Your task to perform on an android device: Go to location settings Image 0: 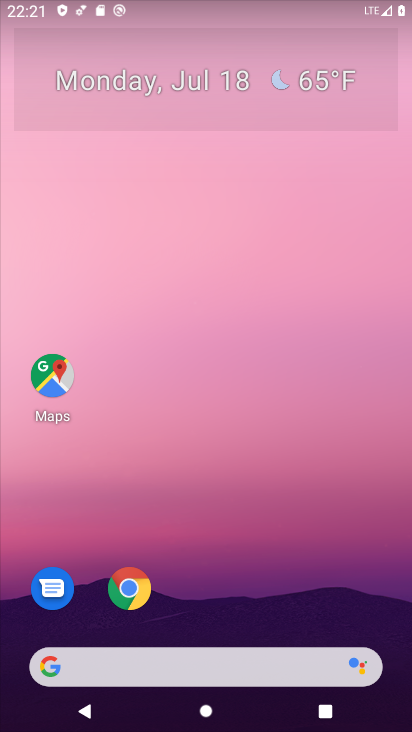
Step 0: press home button
Your task to perform on an android device: Go to location settings Image 1: 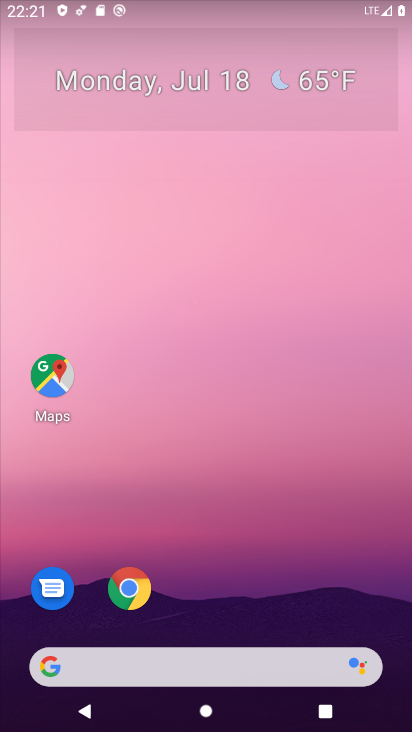
Step 1: drag from (248, 613) to (210, 90)
Your task to perform on an android device: Go to location settings Image 2: 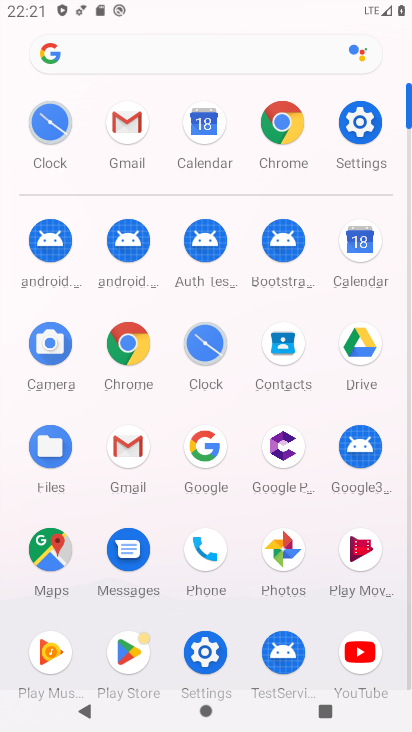
Step 2: click (360, 133)
Your task to perform on an android device: Go to location settings Image 3: 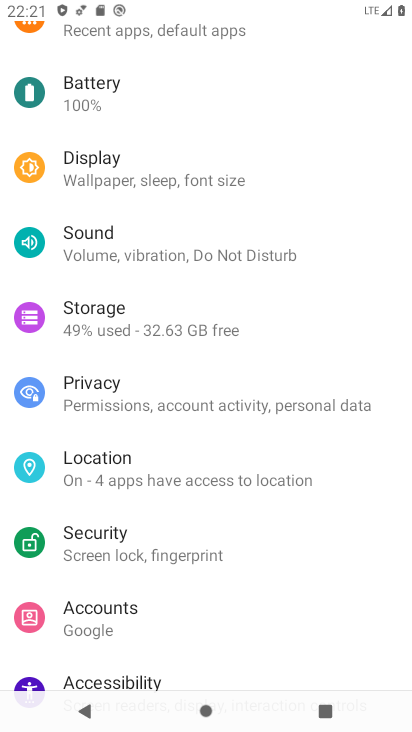
Step 3: click (148, 459)
Your task to perform on an android device: Go to location settings Image 4: 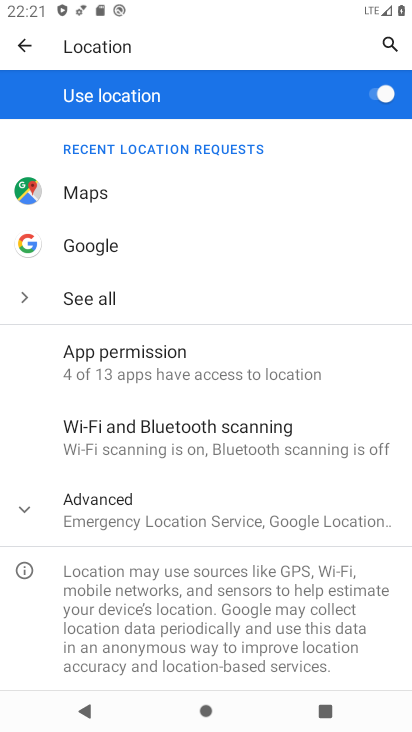
Step 4: task complete